Your task to perform on an android device: Go to CNN.com Image 0: 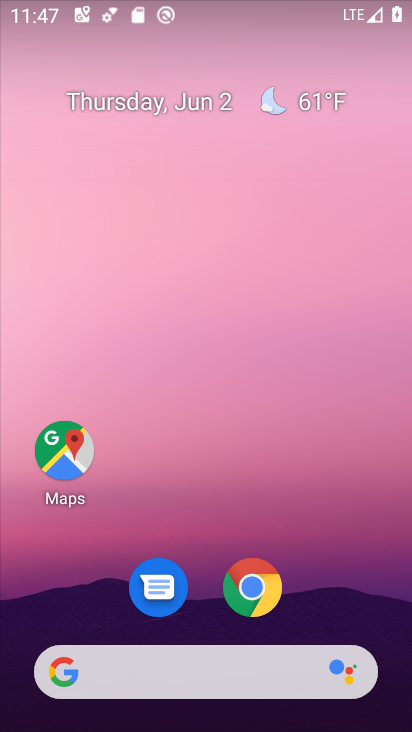
Step 0: click (183, 669)
Your task to perform on an android device: Go to CNN.com Image 1: 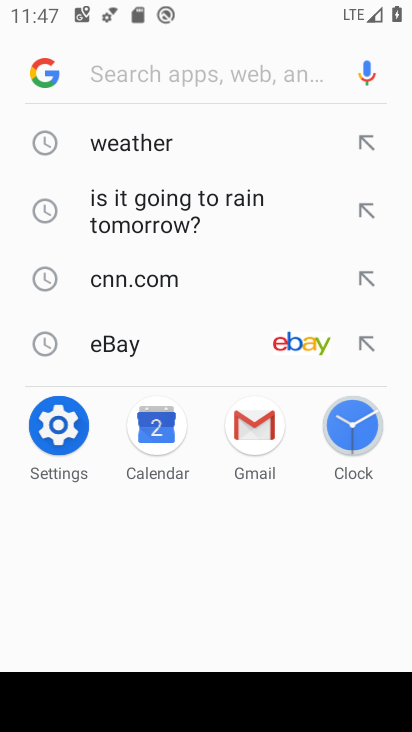
Step 1: type "cnn.com"
Your task to perform on an android device: Go to CNN.com Image 2: 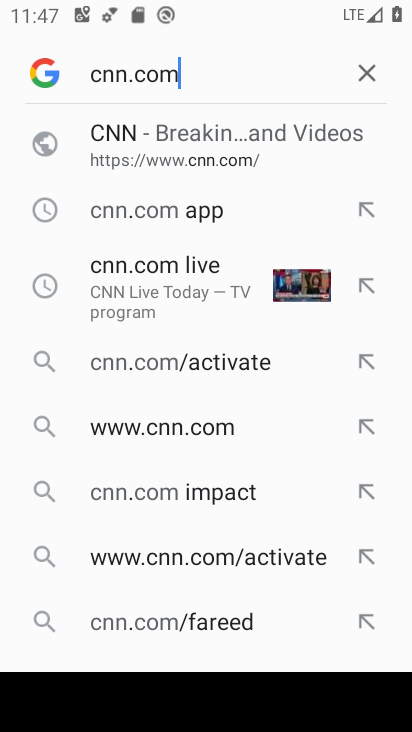
Step 2: click (142, 144)
Your task to perform on an android device: Go to CNN.com Image 3: 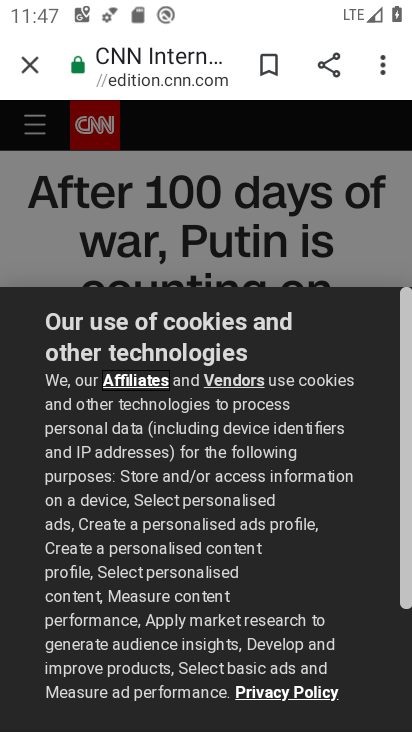
Step 3: task complete